Your task to perform on an android device: Open the web browser Image 0: 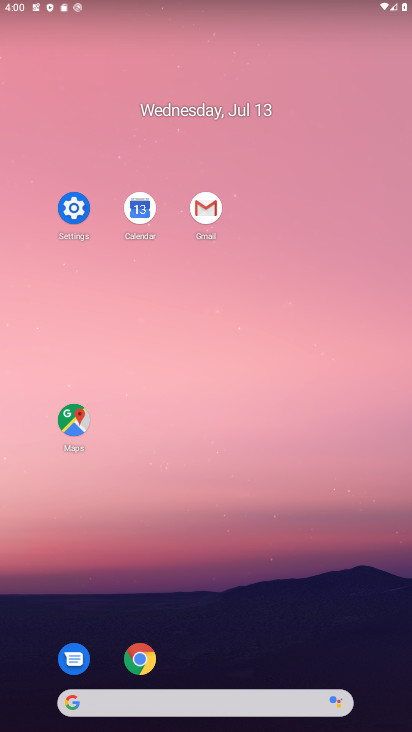
Step 0: click (133, 663)
Your task to perform on an android device: Open the web browser Image 1: 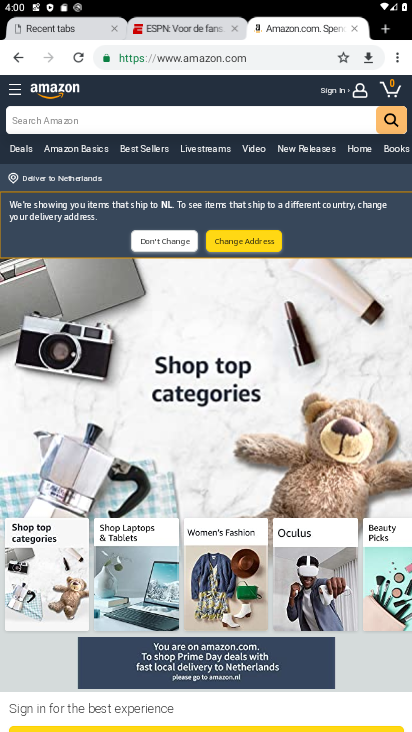
Step 1: task complete